Your task to perform on an android device: Do I have any events tomorrow? Image 0: 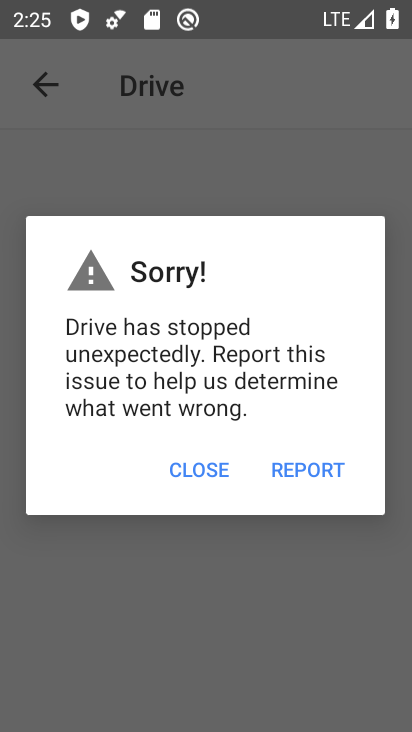
Step 0: press home button
Your task to perform on an android device: Do I have any events tomorrow? Image 1: 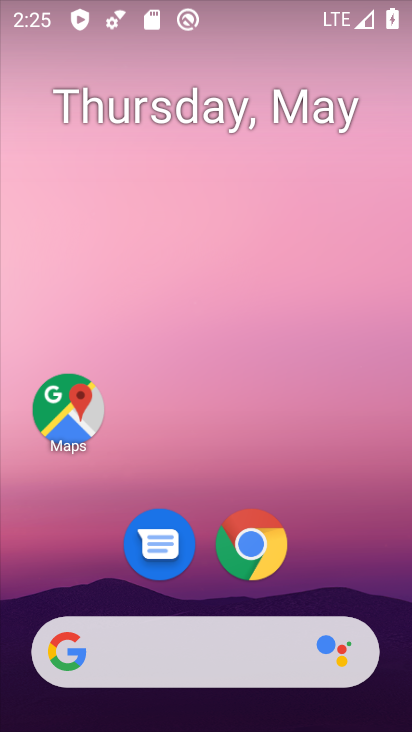
Step 1: drag from (231, 716) to (141, 140)
Your task to perform on an android device: Do I have any events tomorrow? Image 2: 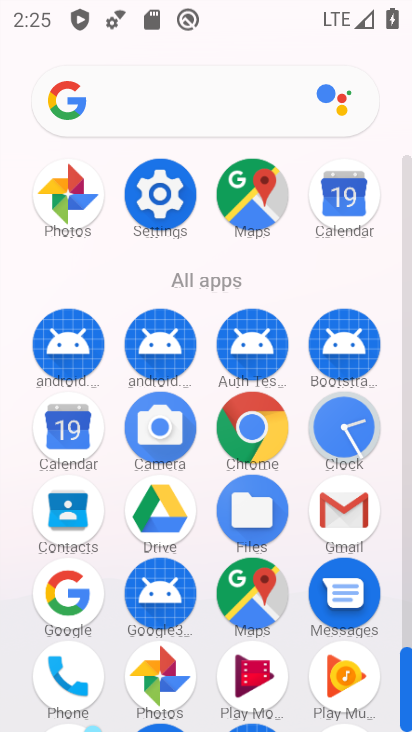
Step 2: click (73, 447)
Your task to perform on an android device: Do I have any events tomorrow? Image 3: 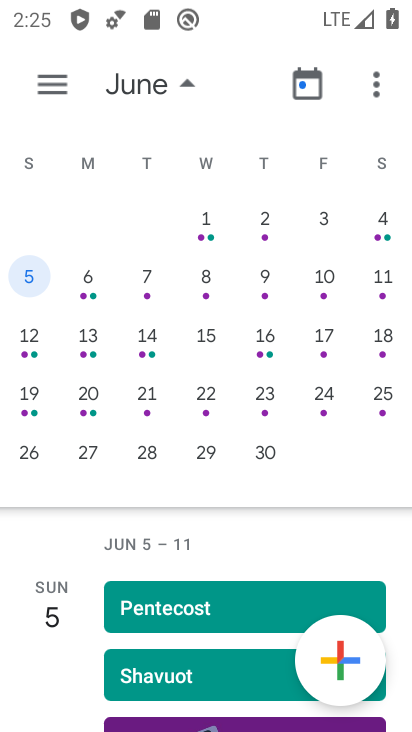
Step 3: drag from (132, 291) to (403, 337)
Your task to perform on an android device: Do I have any events tomorrow? Image 4: 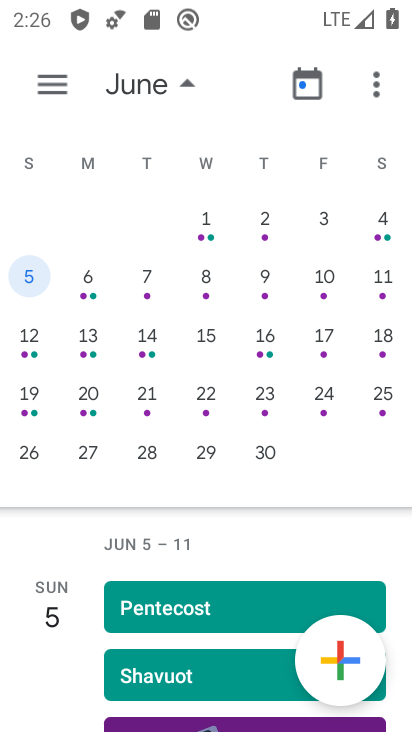
Step 4: drag from (64, 380) to (398, 404)
Your task to perform on an android device: Do I have any events tomorrow? Image 5: 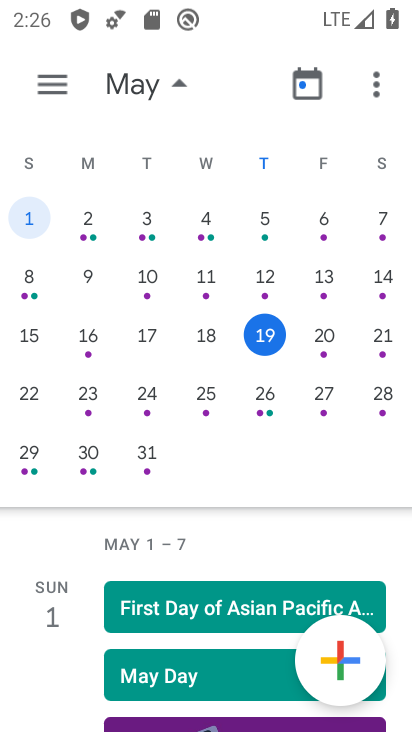
Step 5: click (326, 340)
Your task to perform on an android device: Do I have any events tomorrow? Image 6: 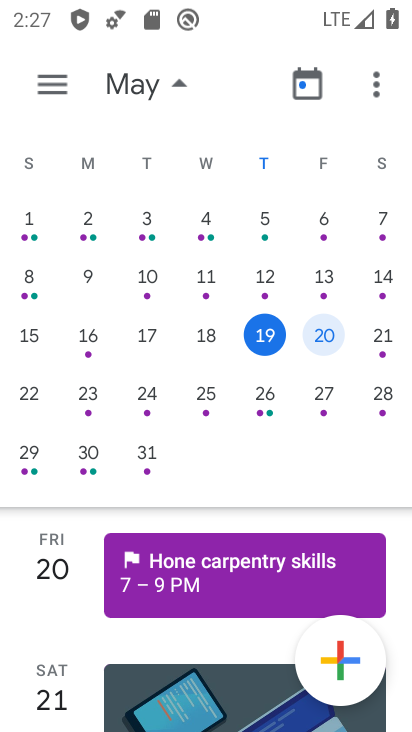
Step 6: click (327, 346)
Your task to perform on an android device: Do I have any events tomorrow? Image 7: 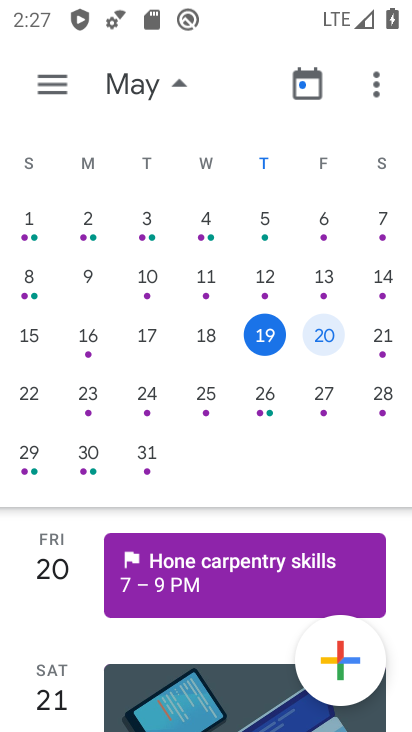
Step 7: task complete